Your task to perform on an android device: Open Maps and search for coffee Image 0: 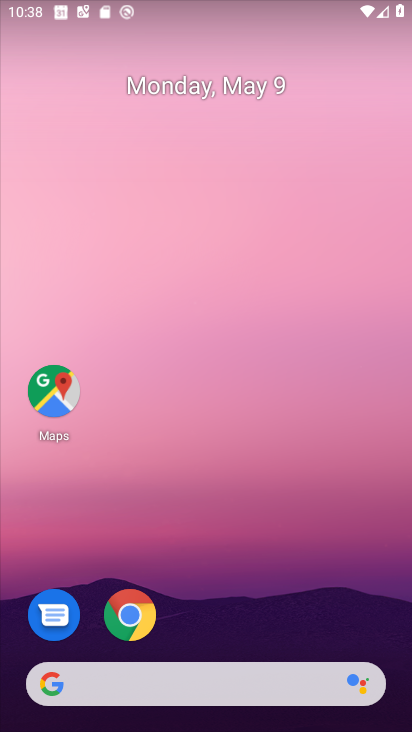
Step 0: drag from (249, 726) to (145, 176)
Your task to perform on an android device: Open Maps and search for coffee Image 1: 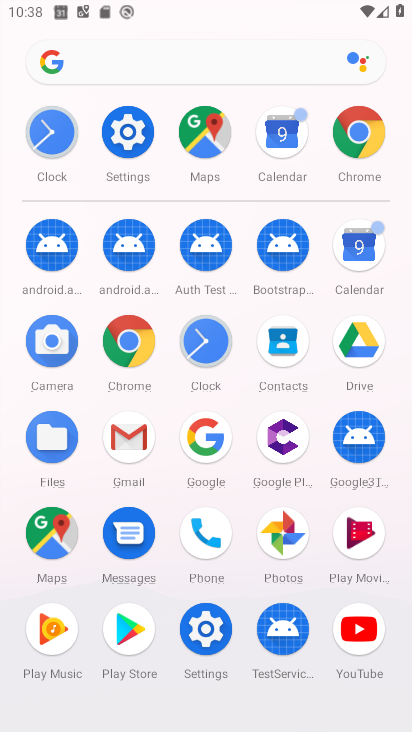
Step 1: click (206, 152)
Your task to perform on an android device: Open Maps and search for coffee Image 2: 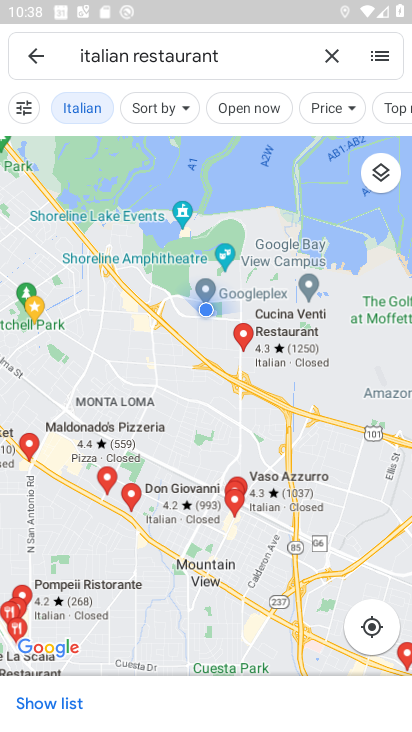
Step 2: click (339, 46)
Your task to perform on an android device: Open Maps and search for coffee Image 3: 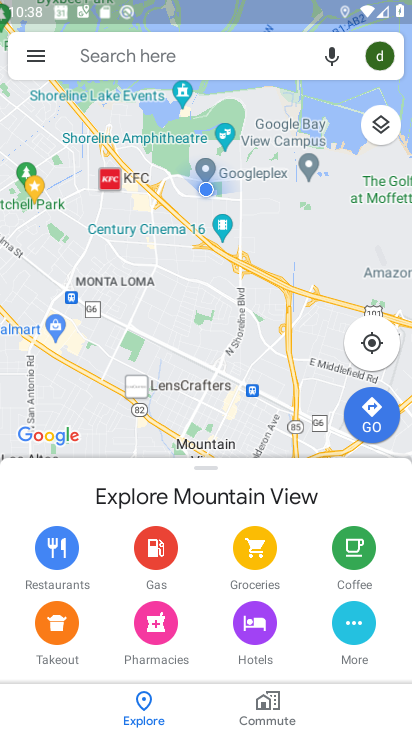
Step 3: click (165, 59)
Your task to perform on an android device: Open Maps and search for coffee Image 4: 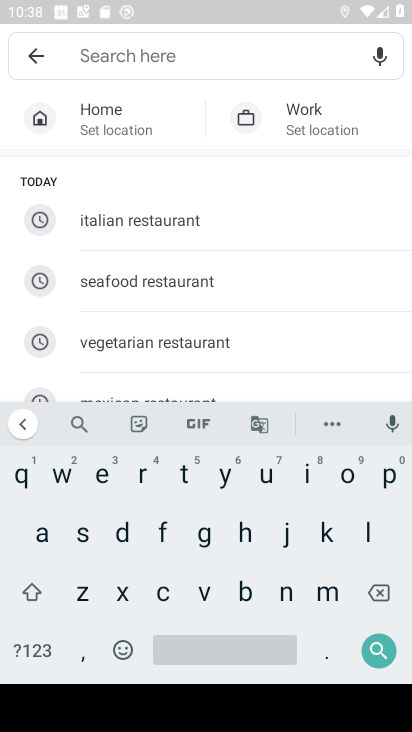
Step 4: click (157, 598)
Your task to perform on an android device: Open Maps and search for coffee Image 5: 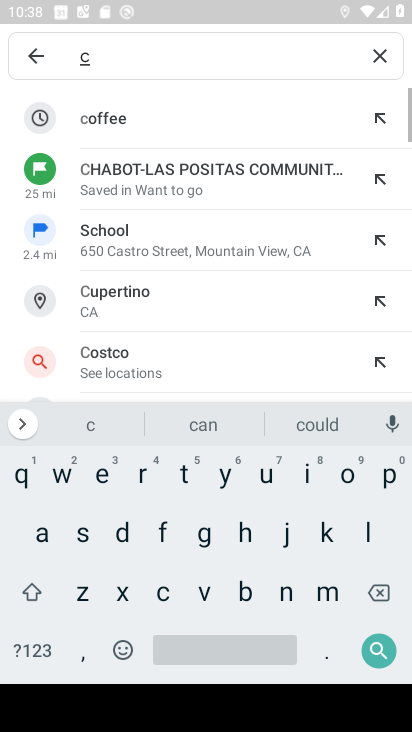
Step 5: click (134, 136)
Your task to perform on an android device: Open Maps and search for coffee Image 6: 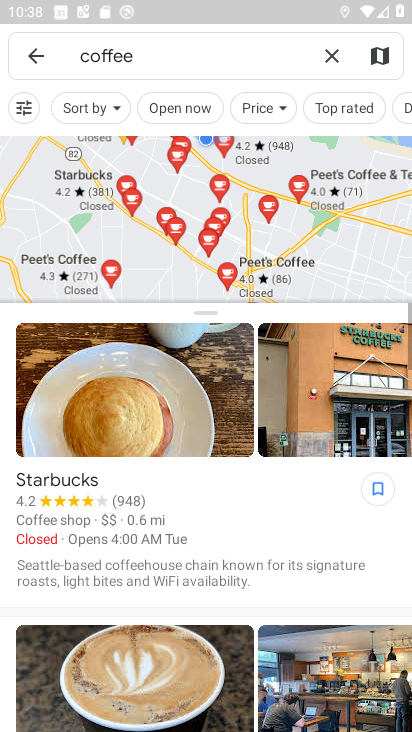
Step 6: click (99, 178)
Your task to perform on an android device: Open Maps and search for coffee Image 7: 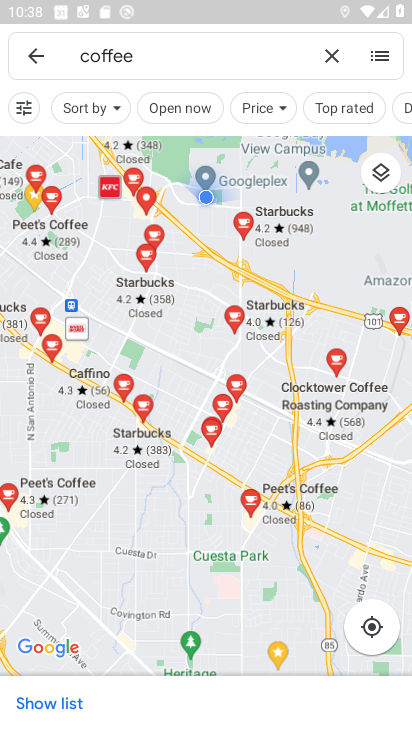
Step 7: task complete